Your task to perform on an android device: find photos in the google photos app Image 0: 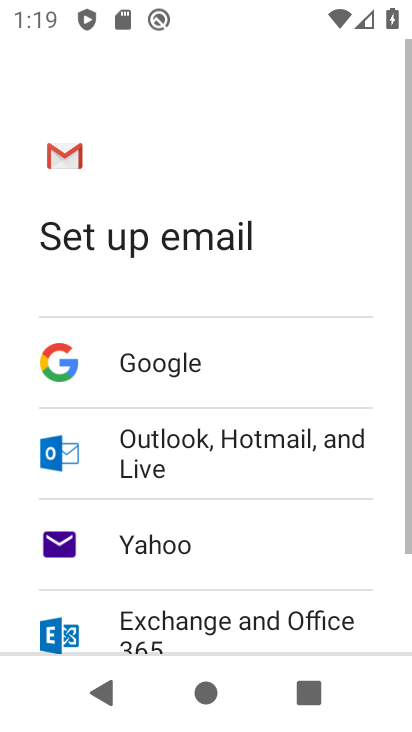
Step 0: press home button
Your task to perform on an android device: find photos in the google photos app Image 1: 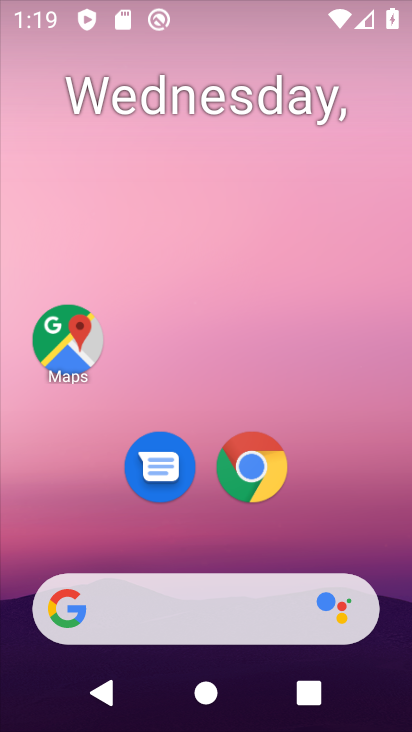
Step 1: drag from (338, 531) to (279, 4)
Your task to perform on an android device: find photos in the google photos app Image 2: 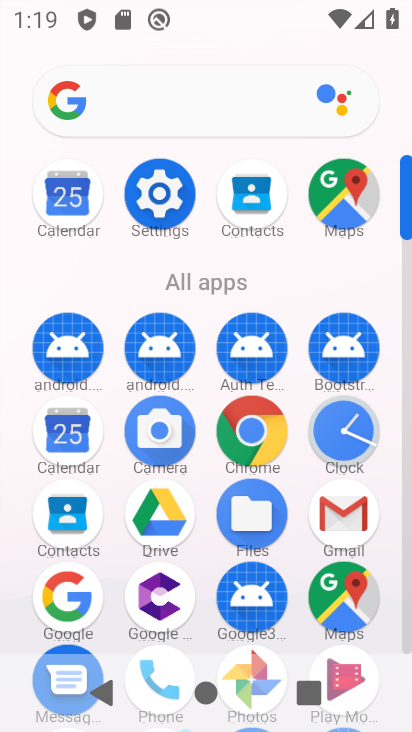
Step 2: drag from (300, 610) to (249, 161)
Your task to perform on an android device: find photos in the google photos app Image 3: 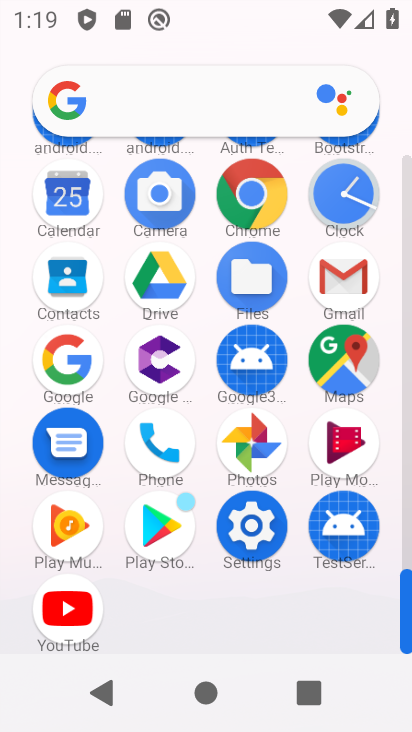
Step 3: click (250, 442)
Your task to perform on an android device: find photos in the google photos app Image 4: 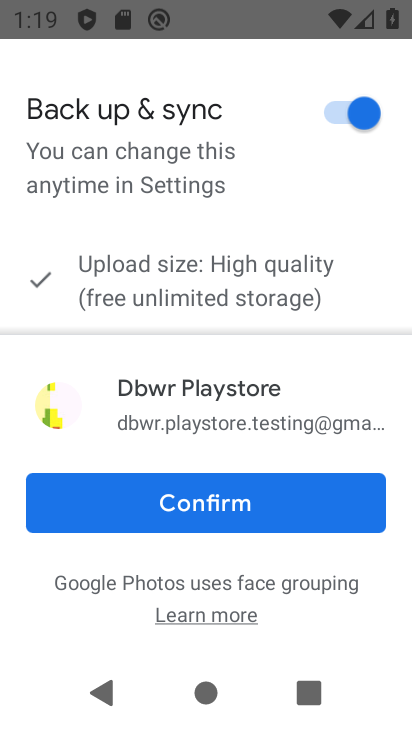
Step 4: click (131, 495)
Your task to perform on an android device: find photos in the google photos app Image 5: 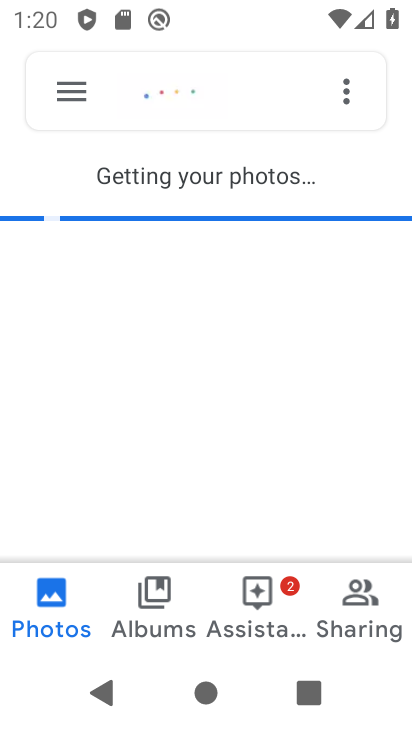
Step 5: task complete